Your task to perform on an android device: turn on sleep mode Image 0: 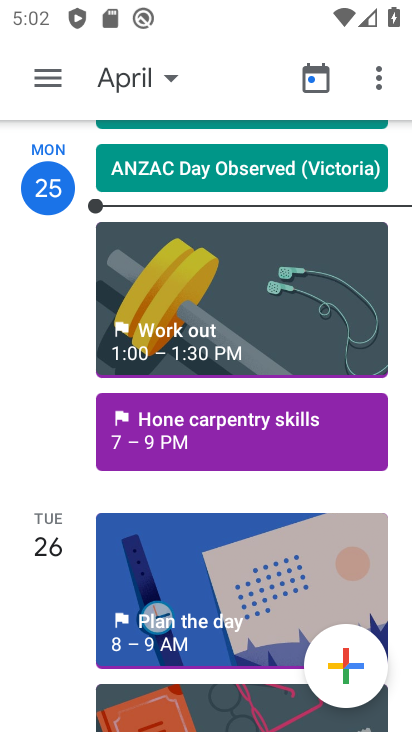
Step 0: press back button
Your task to perform on an android device: turn on sleep mode Image 1: 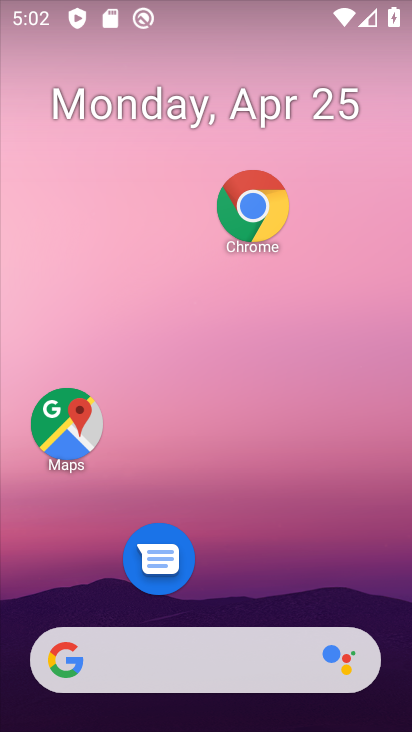
Step 1: drag from (271, 505) to (303, 54)
Your task to perform on an android device: turn on sleep mode Image 2: 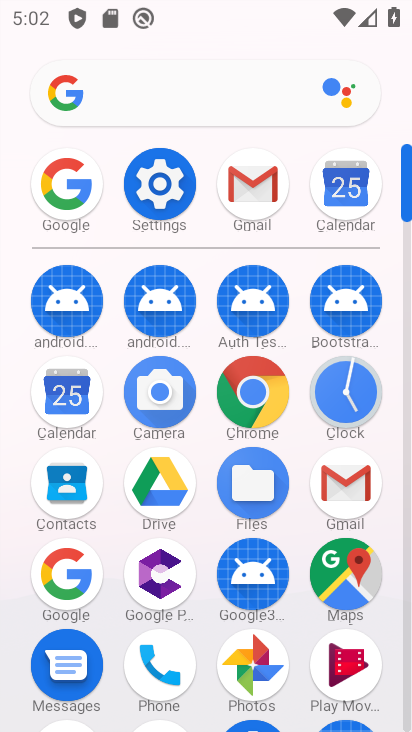
Step 2: click (160, 190)
Your task to perform on an android device: turn on sleep mode Image 3: 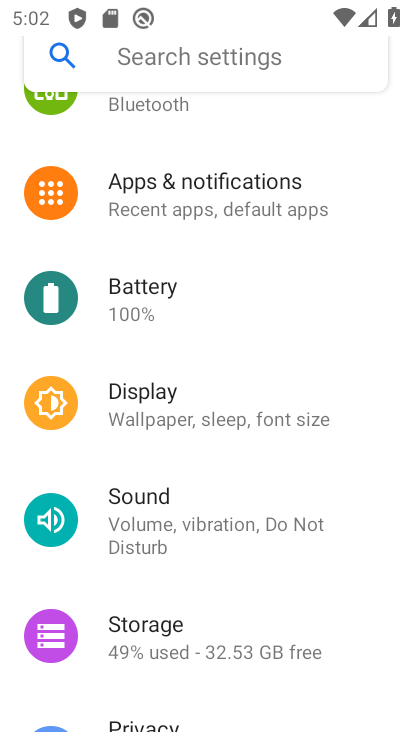
Step 3: click (209, 413)
Your task to perform on an android device: turn on sleep mode Image 4: 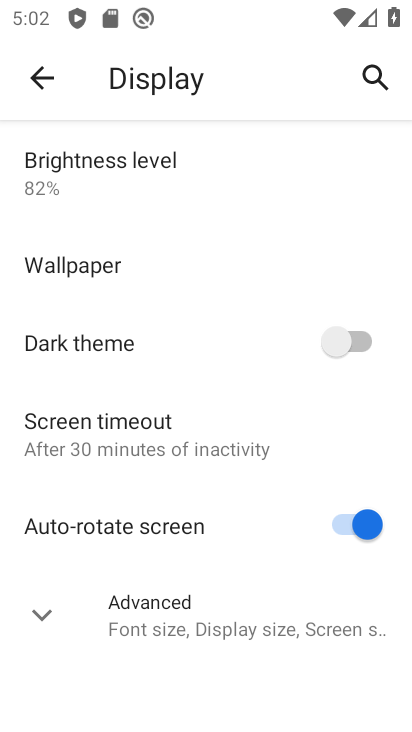
Step 4: click (147, 613)
Your task to perform on an android device: turn on sleep mode Image 5: 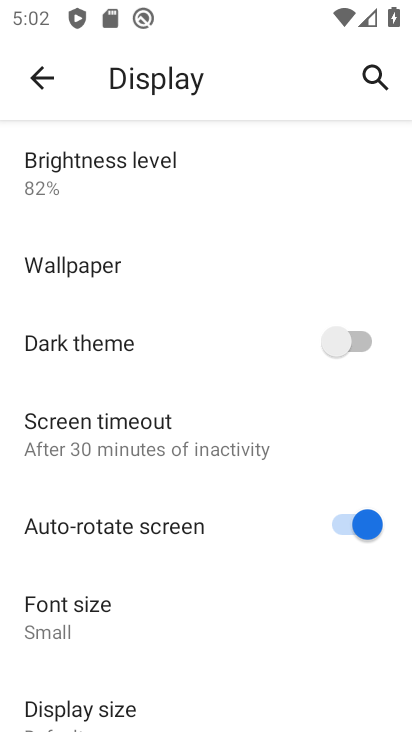
Step 5: click (146, 450)
Your task to perform on an android device: turn on sleep mode Image 6: 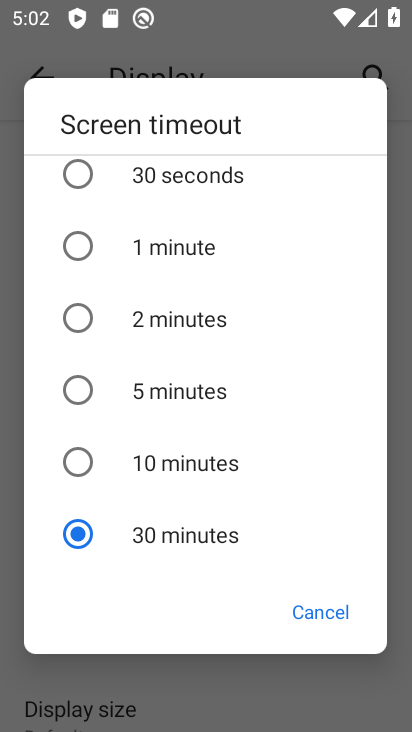
Step 6: click (315, 620)
Your task to perform on an android device: turn on sleep mode Image 7: 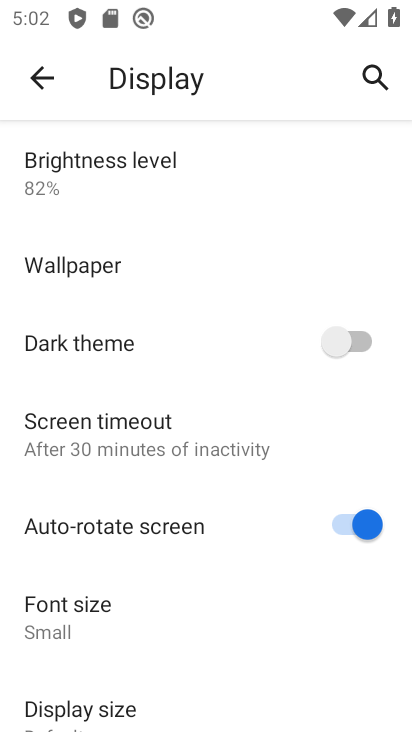
Step 7: task complete